Your task to perform on an android device: Go to Yahoo.com Image 0: 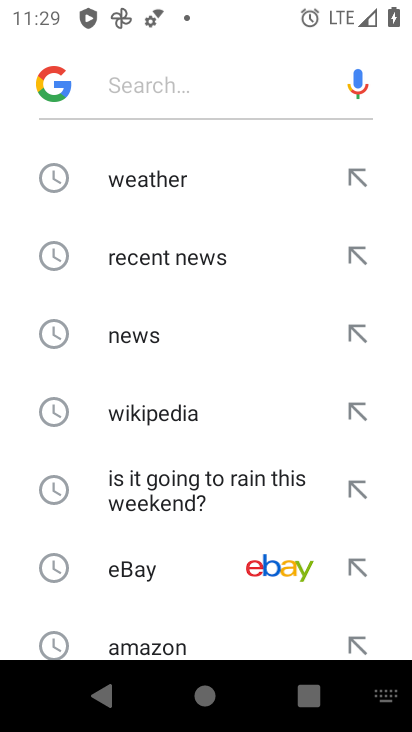
Step 0: press home button
Your task to perform on an android device: Go to Yahoo.com Image 1: 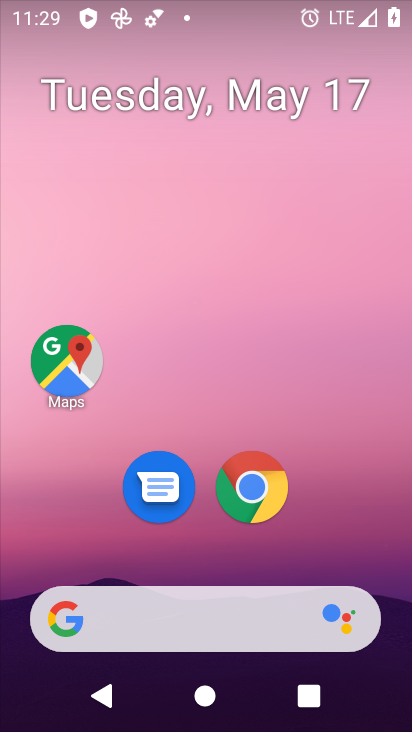
Step 1: click (273, 478)
Your task to perform on an android device: Go to Yahoo.com Image 2: 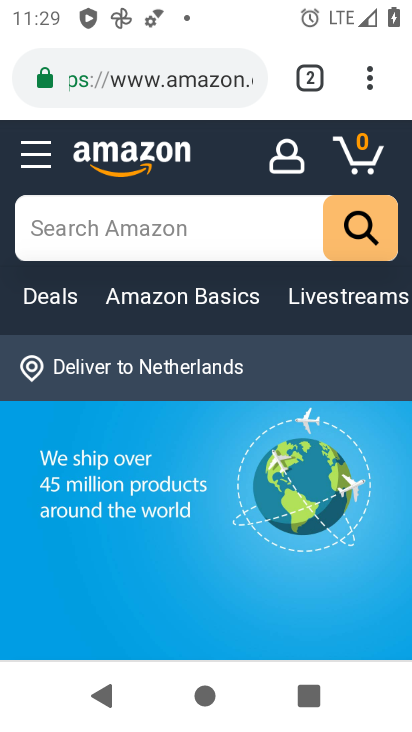
Step 2: click (149, 81)
Your task to perform on an android device: Go to Yahoo.com Image 3: 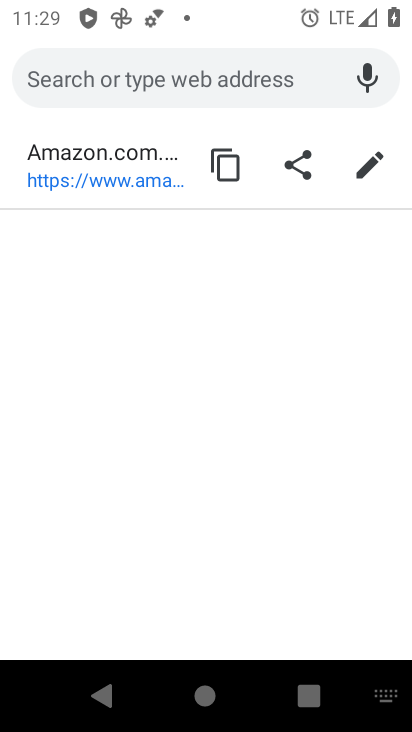
Step 3: click (211, 564)
Your task to perform on an android device: Go to Yahoo.com Image 4: 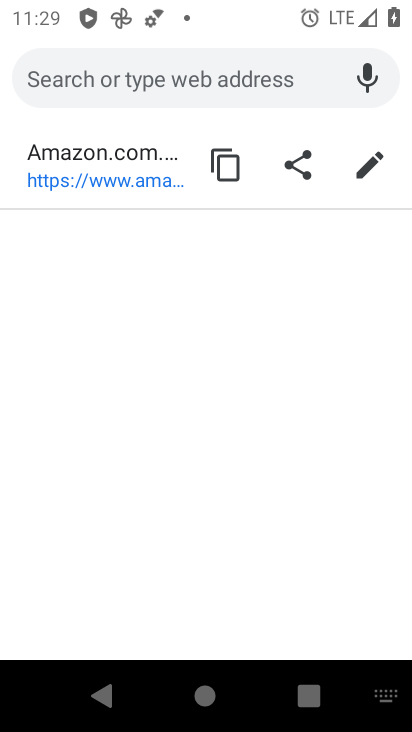
Step 4: click (247, 74)
Your task to perform on an android device: Go to Yahoo.com Image 5: 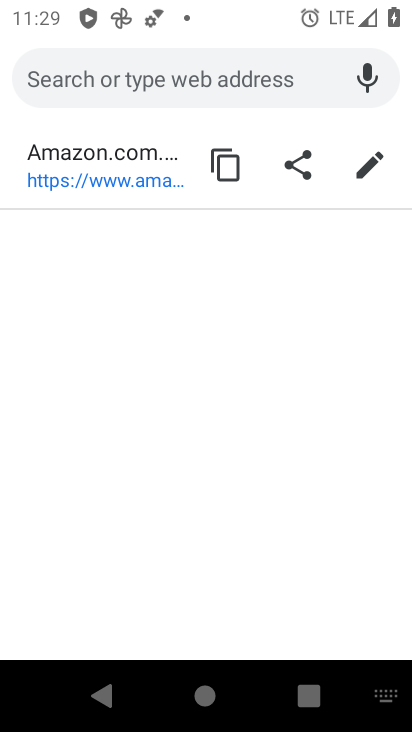
Step 5: type " Yahoo.com"
Your task to perform on an android device: Go to Yahoo.com Image 6: 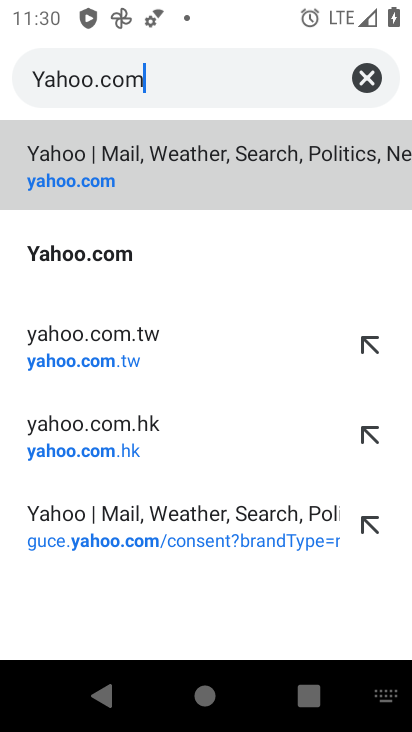
Step 6: click (295, 154)
Your task to perform on an android device: Go to Yahoo.com Image 7: 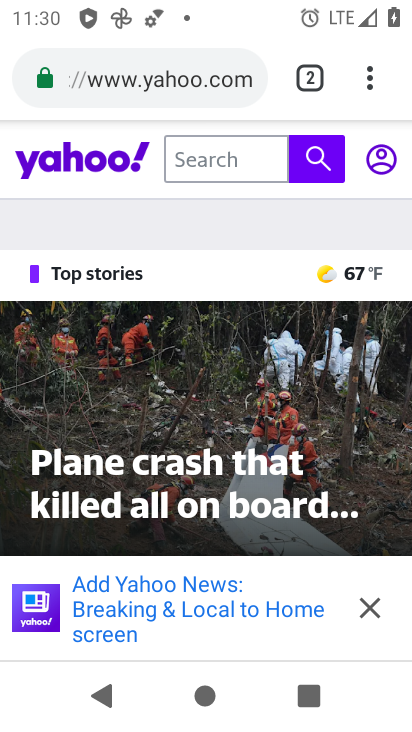
Step 7: task complete